Your task to perform on an android device: turn off notifications settings in the gmail app Image 0: 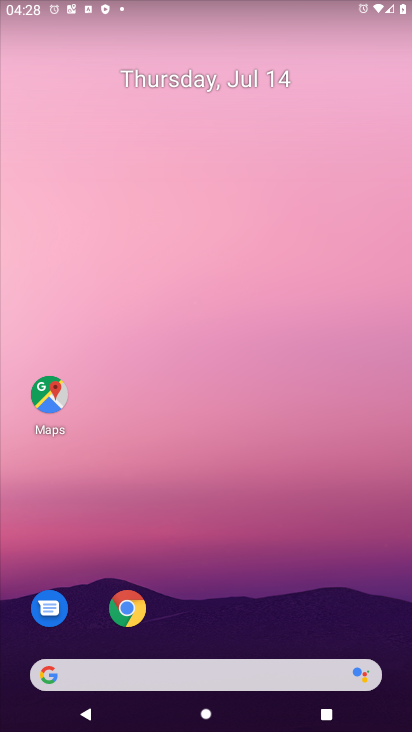
Step 0: drag from (398, 642) to (329, 166)
Your task to perform on an android device: turn off notifications settings in the gmail app Image 1: 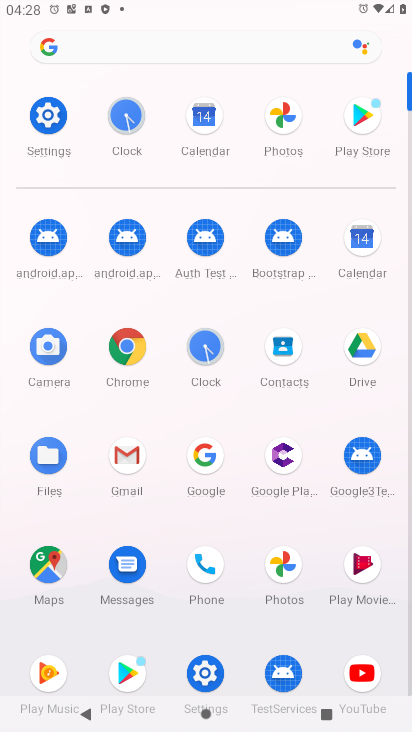
Step 1: click (125, 455)
Your task to perform on an android device: turn off notifications settings in the gmail app Image 2: 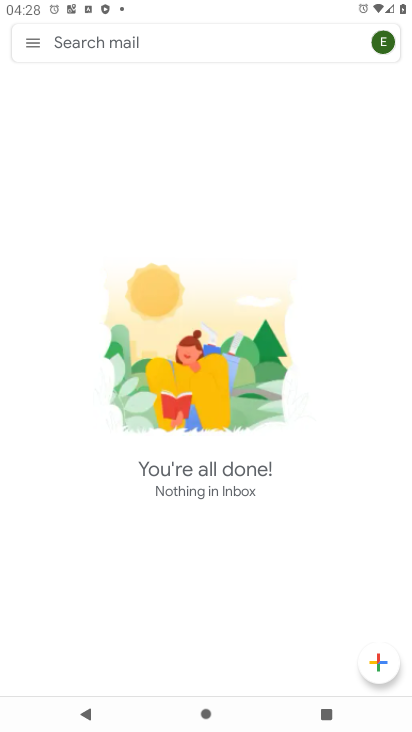
Step 2: click (30, 45)
Your task to perform on an android device: turn off notifications settings in the gmail app Image 3: 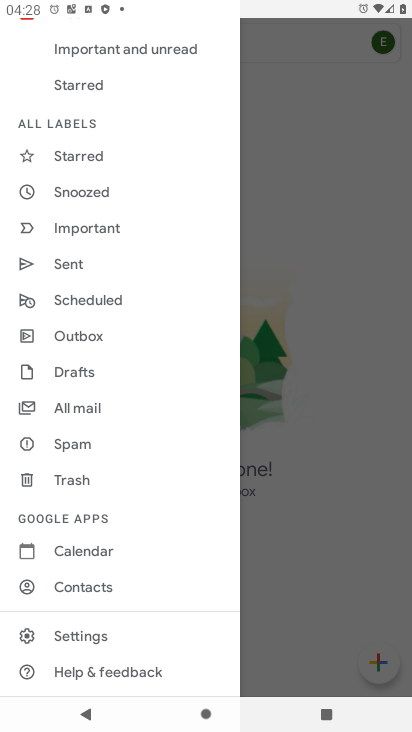
Step 3: click (79, 622)
Your task to perform on an android device: turn off notifications settings in the gmail app Image 4: 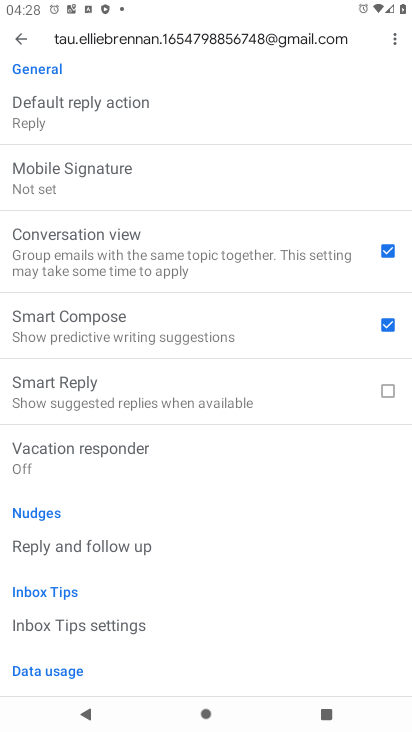
Step 4: drag from (262, 168) to (242, 399)
Your task to perform on an android device: turn off notifications settings in the gmail app Image 5: 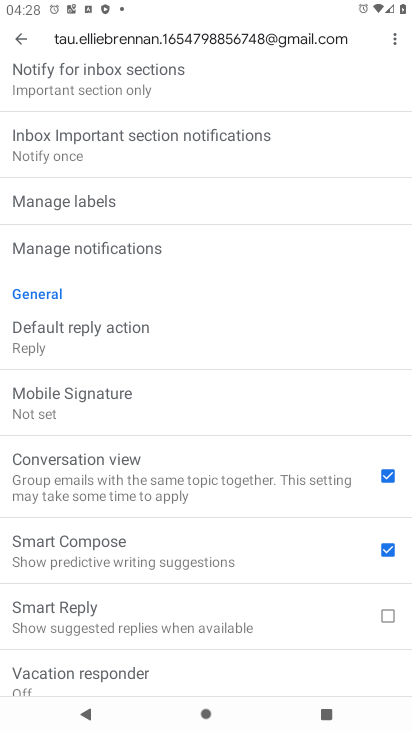
Step 5: click (58, 250)
Your task to perform on an android device: turn off notifications settings in the gmail app Image 6: 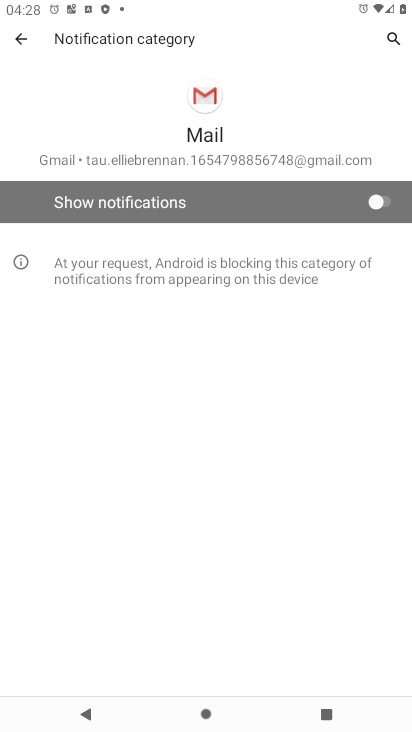
Step 6: task complete